Your task to perform on an android device: turn pop-ups on in chrome Image 0: 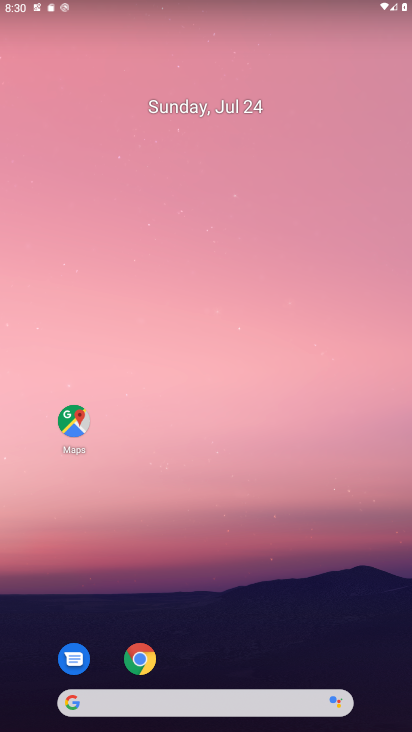
Step 0: click (141, 656)
Your task to perform on an android device: turn pop-ups on in chrome Image 1: 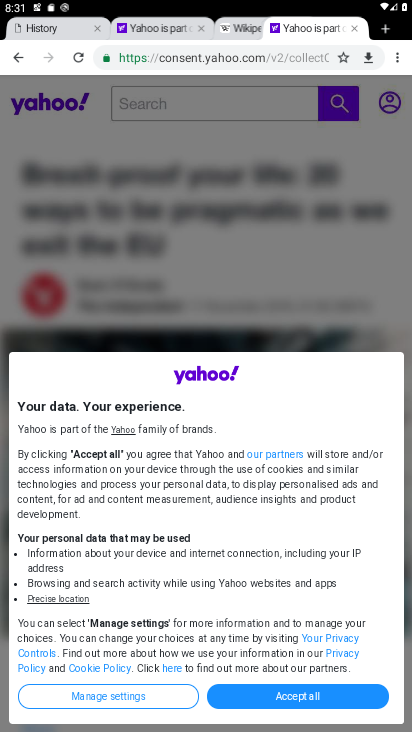
Step 1: click (398, 60)
Your task to perform on an android device: turn pop-ups on in chrome Image 2: 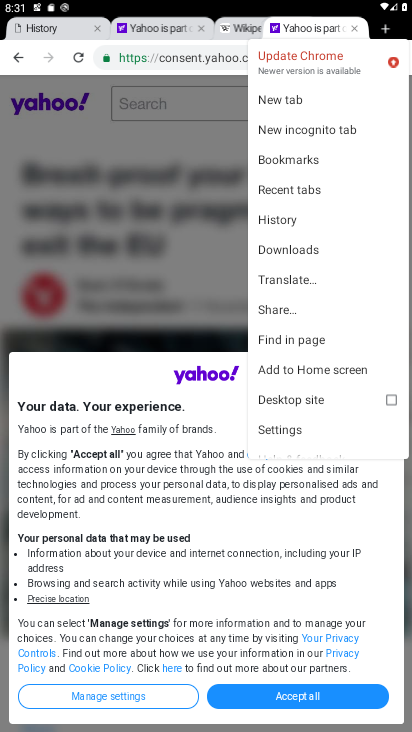
Step 2: click (280, 431)
Your task to perform on an android device: turn pop-ups on in chrome Image 3: 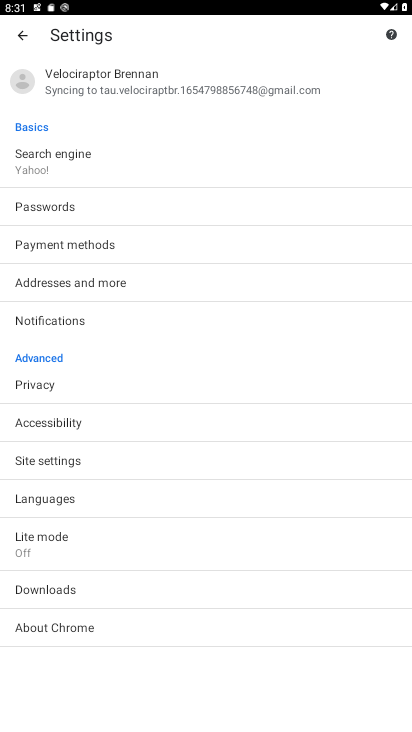
Step 3: click (41, 462)
Your task to perform on an android device: turn pop-ups on in chrome Image 4: 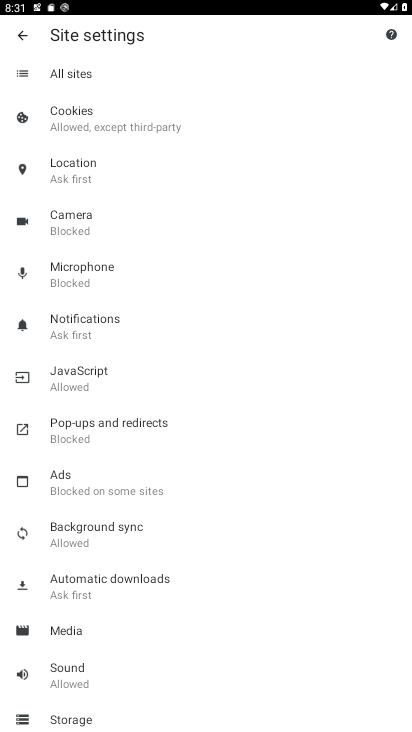
Step 4: click (72, 426)
Your task to perform on an android device: turn pop-ups on in chrome Image 5: 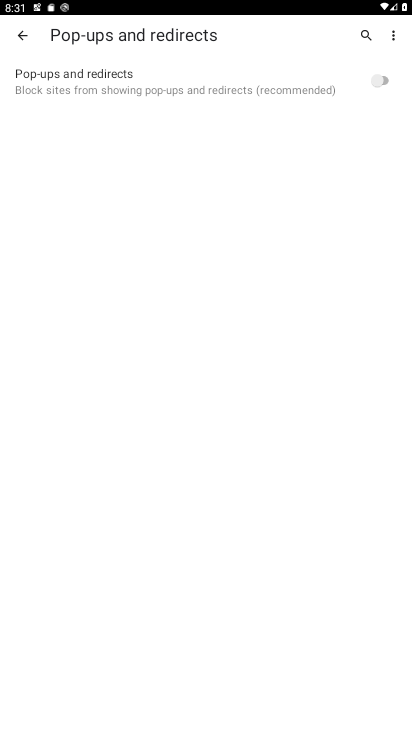
Step 5: click (383, 77)
Your task to perform on an android device: turn pop-ups on in chrome Image 6: 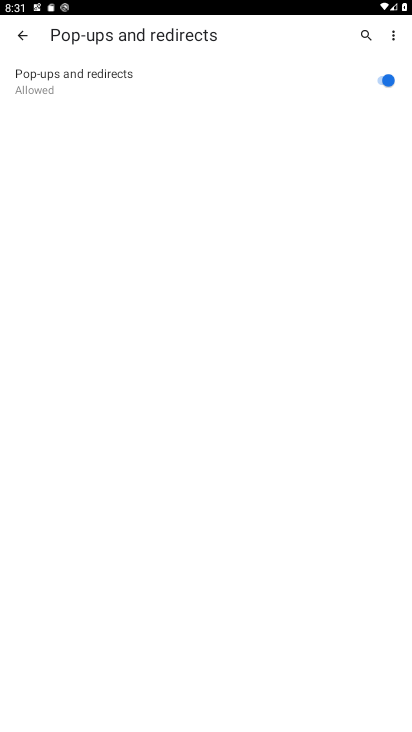
Step 6: task complete